Your task to perform on an android device: turn on improve location accuracy Image 0: 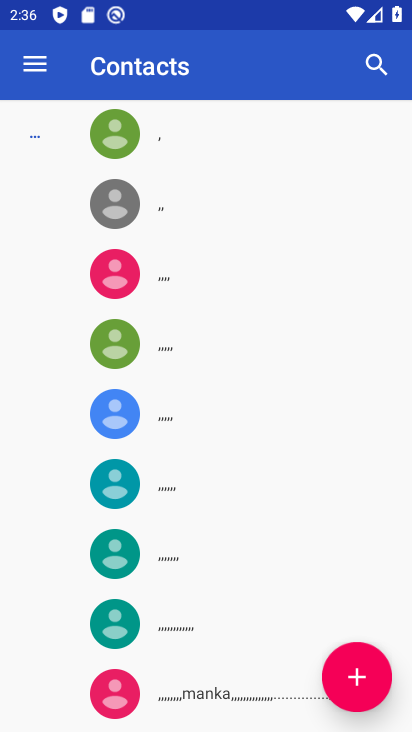
Step 0: press home button
Your task to perform on an android device: turn on improve location accuracy Image 1: 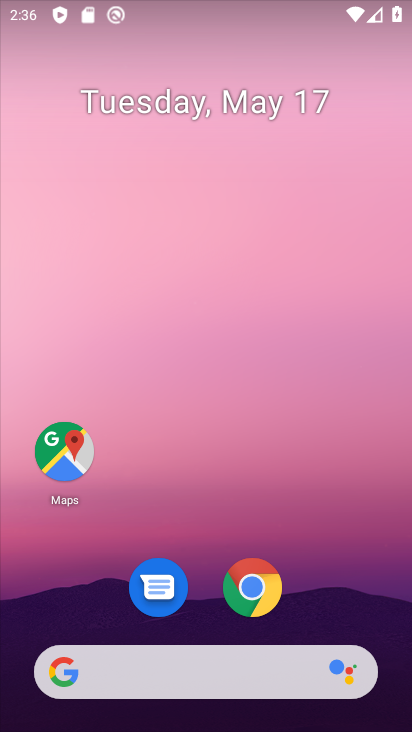
Step 1: drag from (101, 599) to (155, 23)
Your task to perform on an android device: turn on improve location accuracy Image 2: 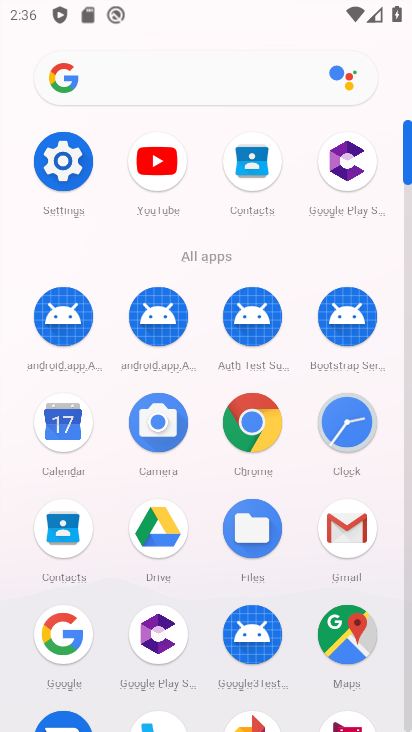
Step 2: click (70, 170)
Your task to perform on an android device: turn on improve location accuracy Image 3: 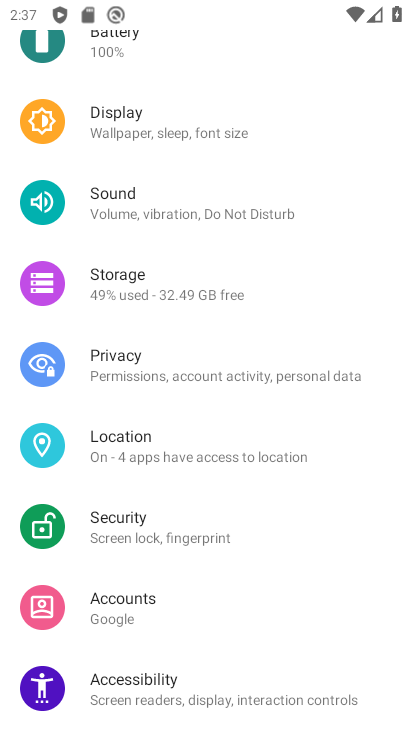
Step 3: drag from (136, 655) to (136, 365)
Your task to perform on an android device: turn on improve location accuracy Image 4: 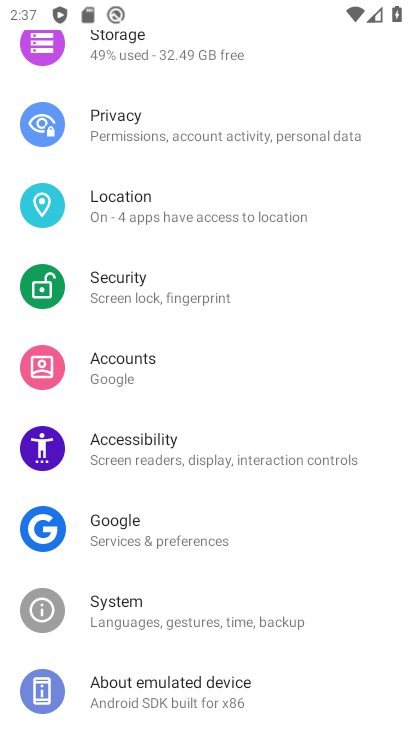
Step 4: click (149, 214)
Your task to perform on an android device: turn on improve location accuracy Image 5: 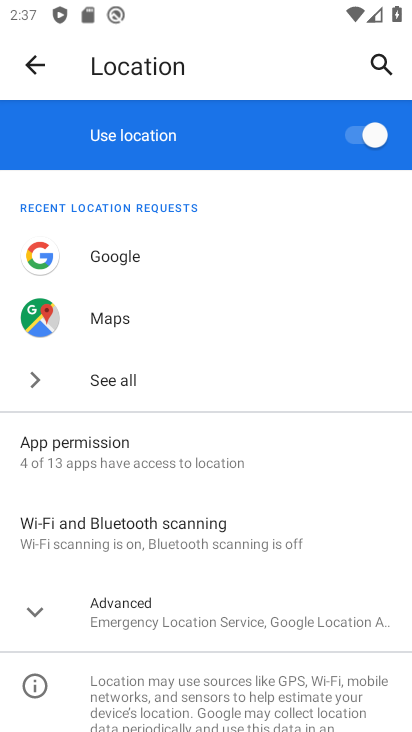
Step 5: click (222, 613)
Your task to perform on an android device: turn on improve location accuracy Image 6: 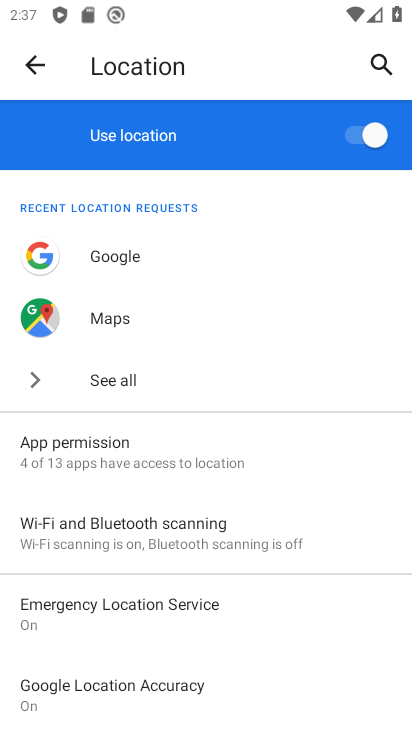
Step 6: click (176, 681)
Your task to perform on an android device: turn on improve location accuracy Image 7: 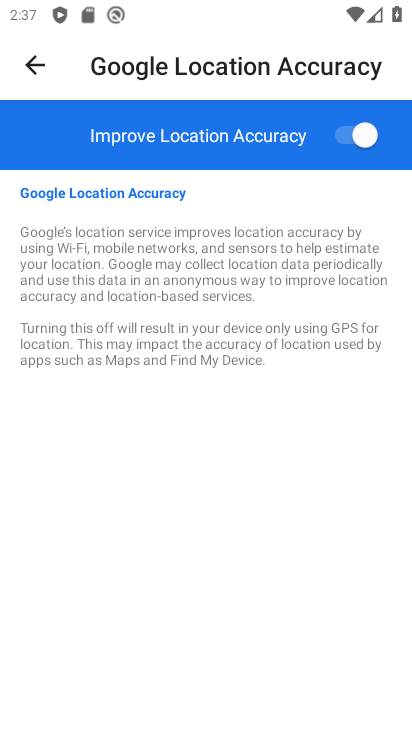
Step 7: task complete